Your task to perform on an android device: Go to eBay Image 0: 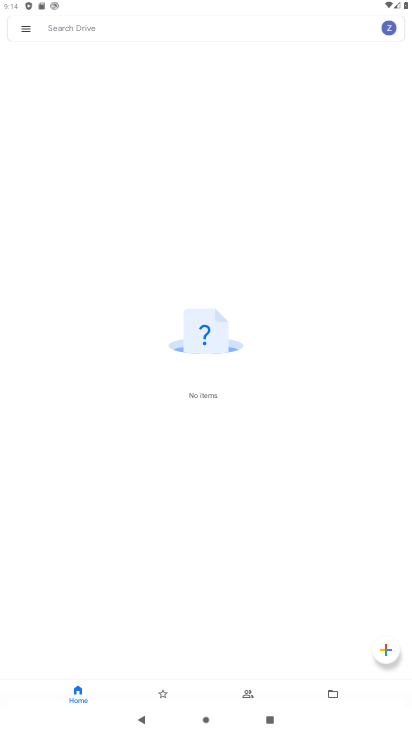
Step 0: press home button
Your task to perform on an android device: Go to eBay Image 1: 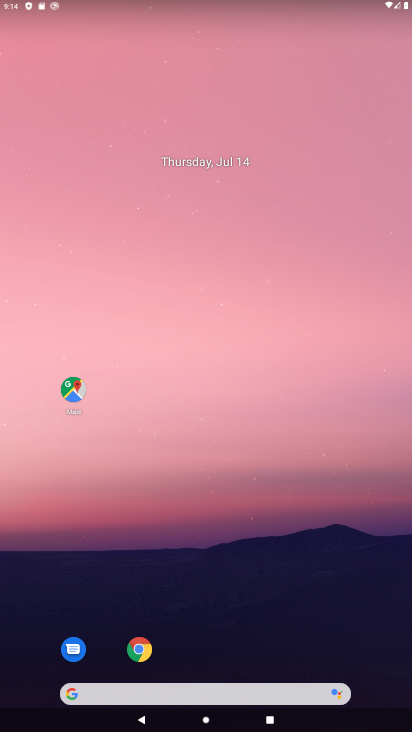
Step 1: click (151, 643)
Your task to perform on an android device: Go to eBay Image 2: 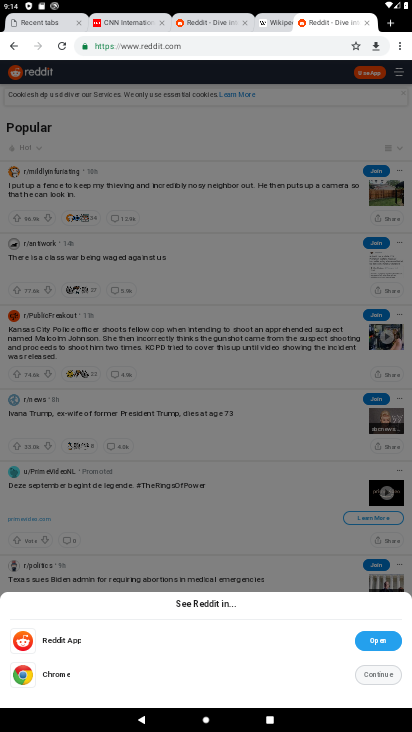
Step 2: click (375, 22)
Your task to perform on an android device: Go to eBay Image 3: 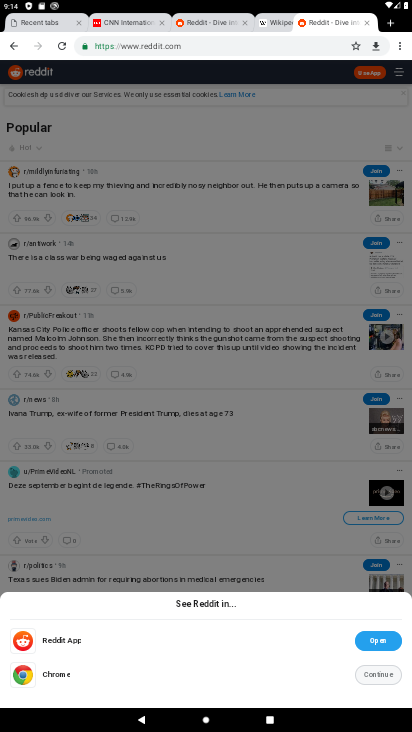
Step 3: click (392, 33)
Your task to perform on an android device: Go to eBay Image 4: 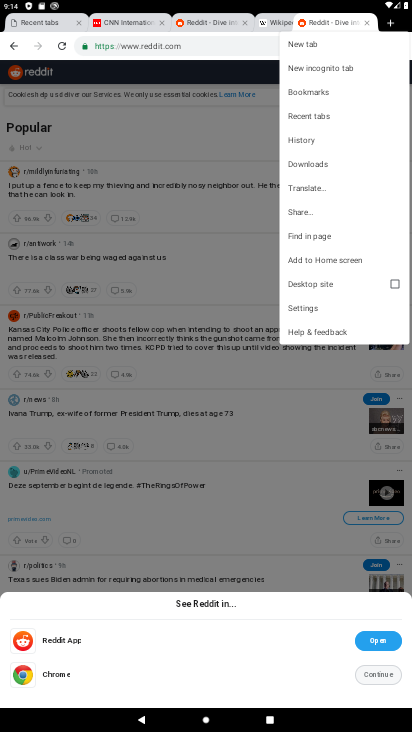
Step 4: click (386, 21)
Your task to perform on an android device: Go to eBay Image 5: 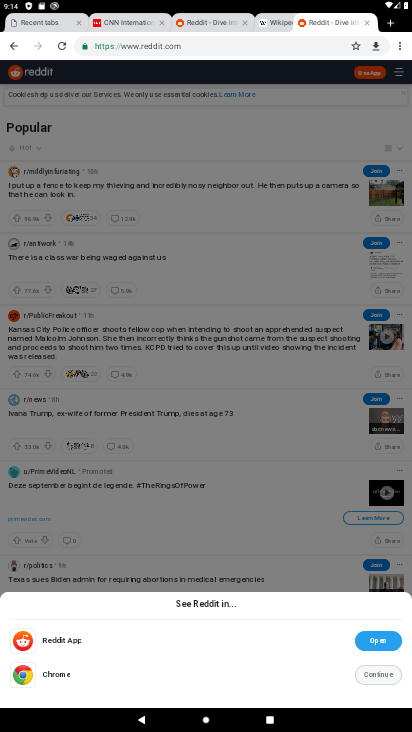
Step 5: click (386, 21)
Your task to perform on an android device: Go to eBay Image 6: 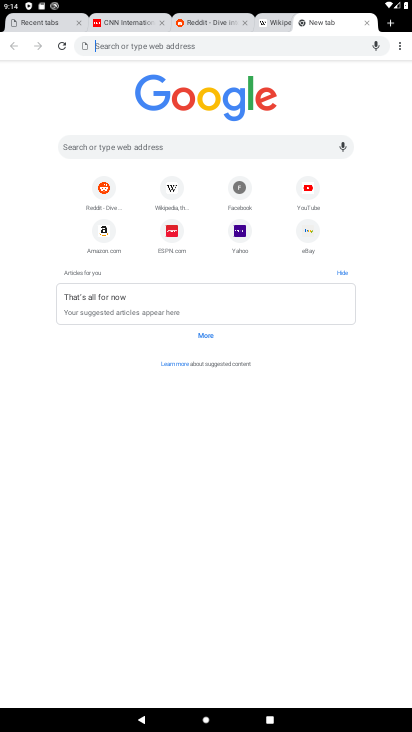
Step 6: click (170, 143)
Your task to perform on an android device: Go to eBay Image 7: 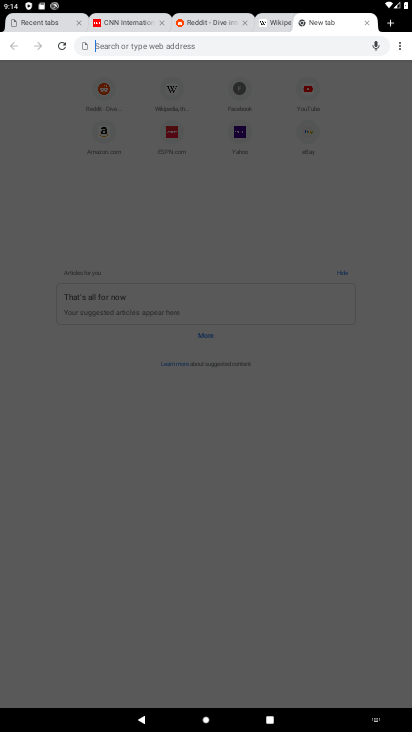
Step 7: click (333, 153)
Your task to perform on an android device: Go to eBay Image 8: 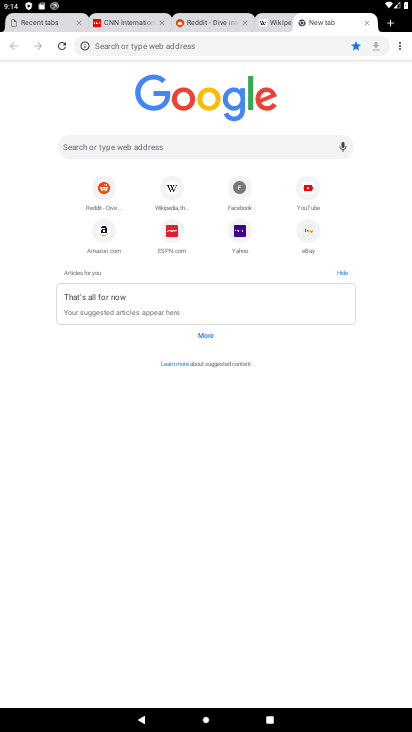
Step 8: click (316, 233)
Your task to perform on an android device: Go to eBay Image 9: 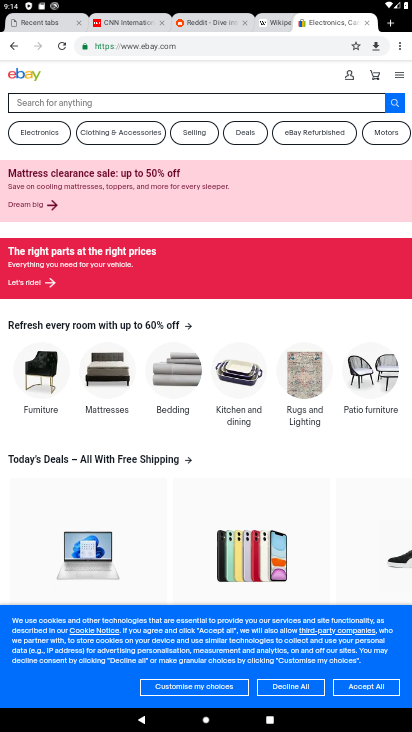
Step 9: task complete